Your task to perform on an android device: open wifi settings Image 0: 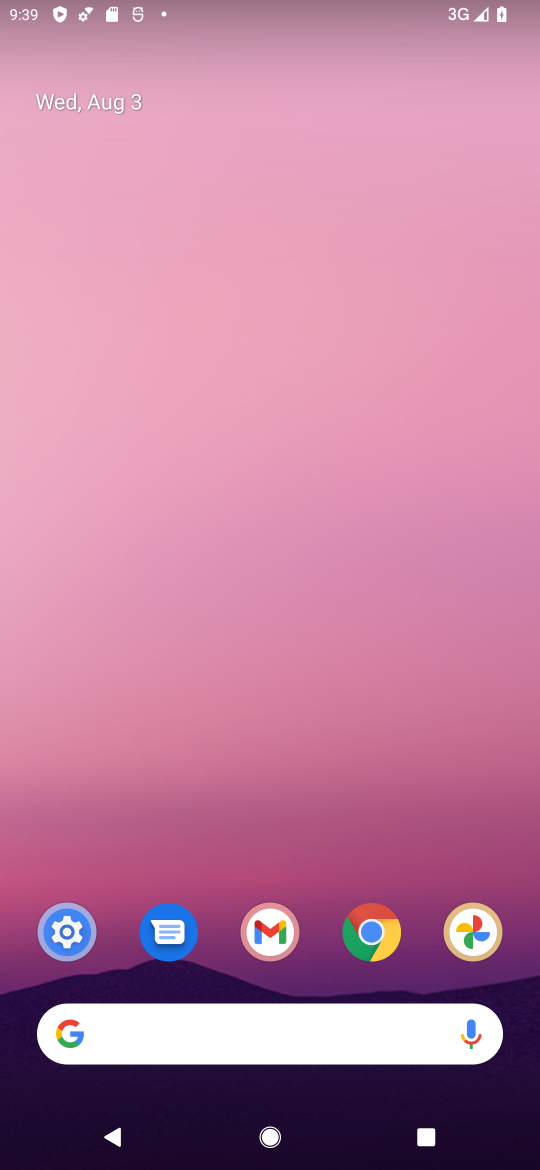
Step 0: click (60, 933)
Your task to perform on an android device: open wifi settings Image 1: 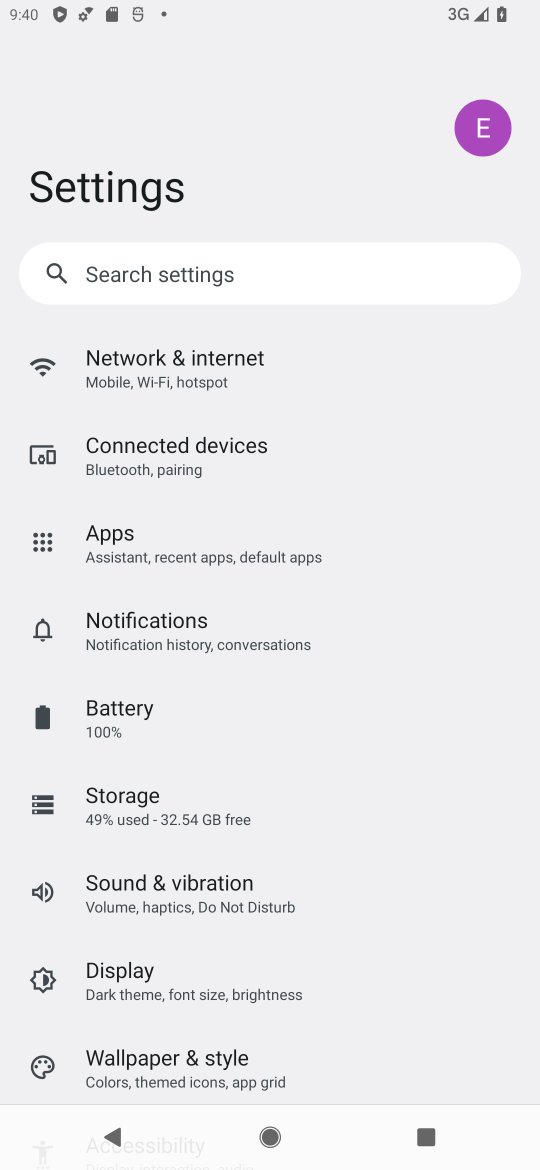
Step 1: click (171, 377)
Your task to perform on an android device: open wifi settings Image 2: 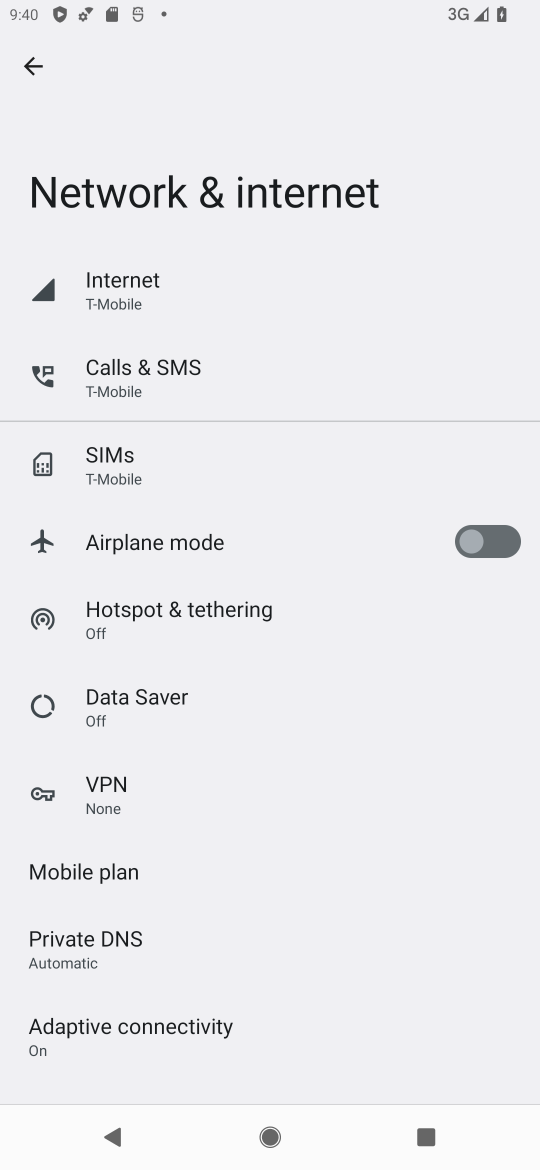
Step 2: click (196, 286)
Your task to perform on an android device: open wifi settings Image 3: 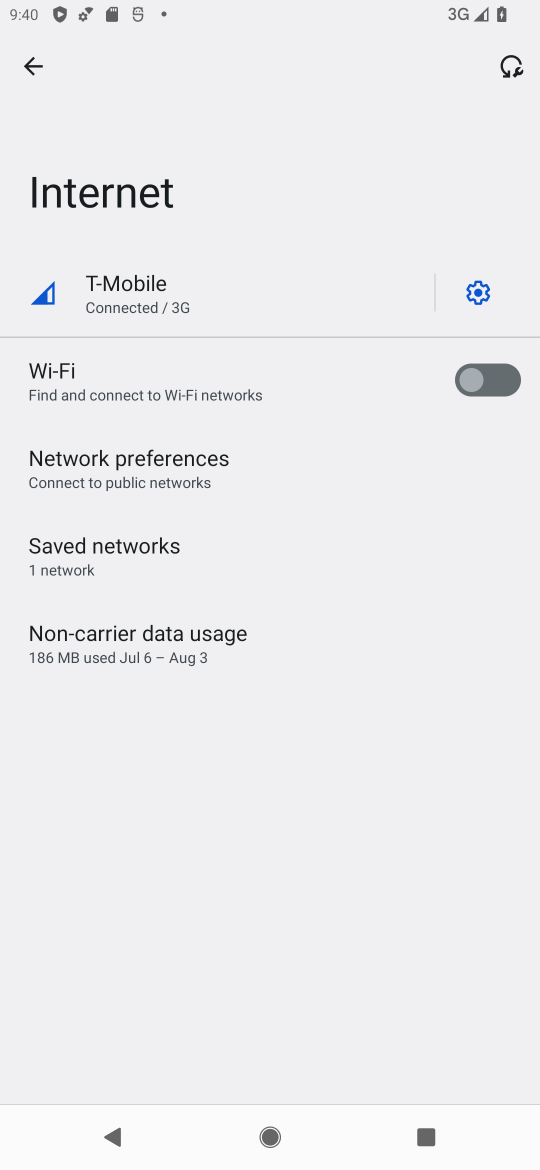
Step 3: task complete